Your task to perform on an android device: Open accessibility settings Image 0: 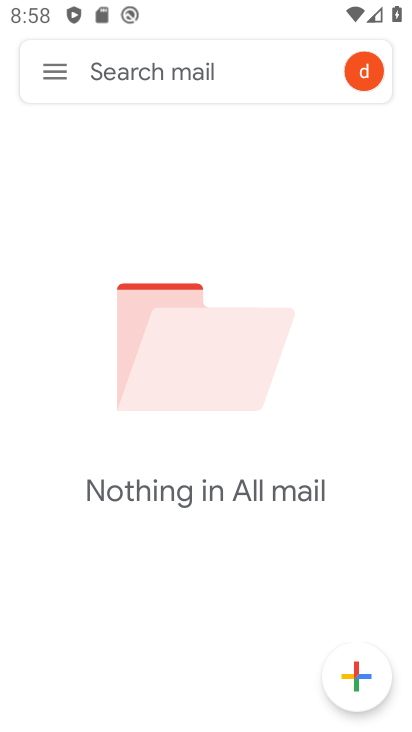
Step 0: press home button
Your task to perform on an android device: Open accessibility settings Image 1: 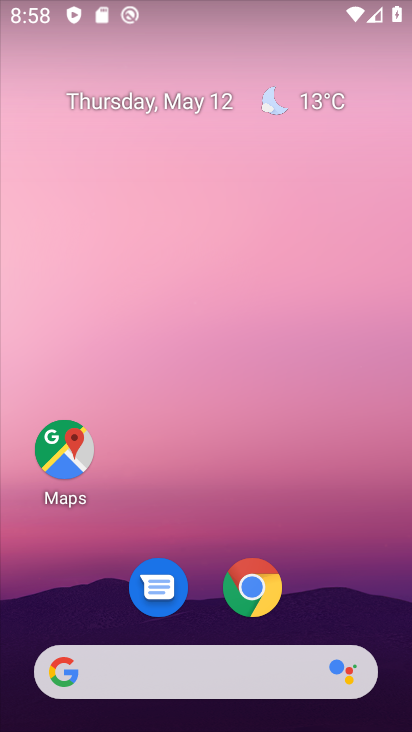
Step 1: drag from (336, 584) to (299, 118)
Your task to perform on an android device: Open accessibility settings Image 2: 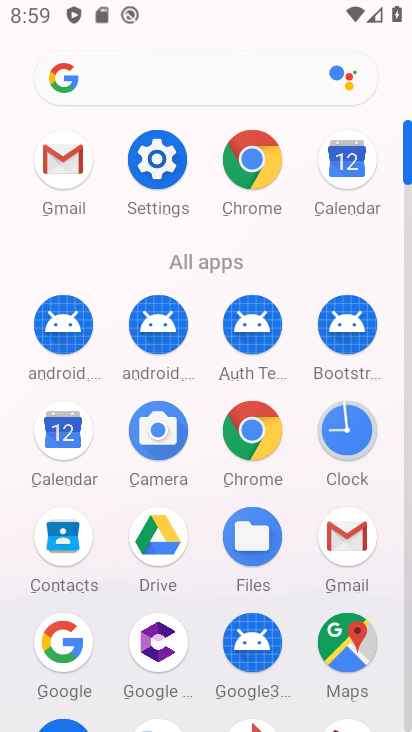
Step 2: click (157, 149)
Your task to perform on an android device: Open accessibility settings Image 3: 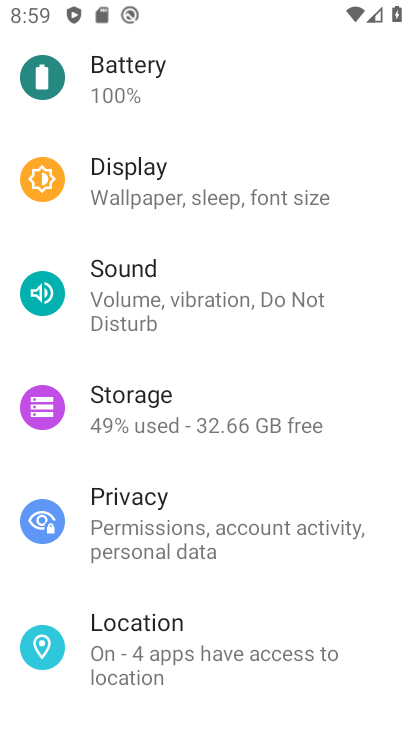
Step 3: drag from (227, 584) to (266, 72)
Your task to perform on an android device: Open accessibility settings Image 4: 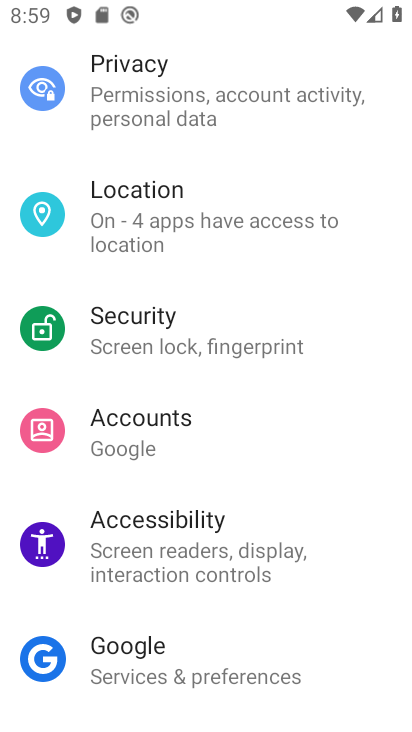
Step 4: click (237, 551)
Your task to perform on an android device: Open accessibility settings Image 5: 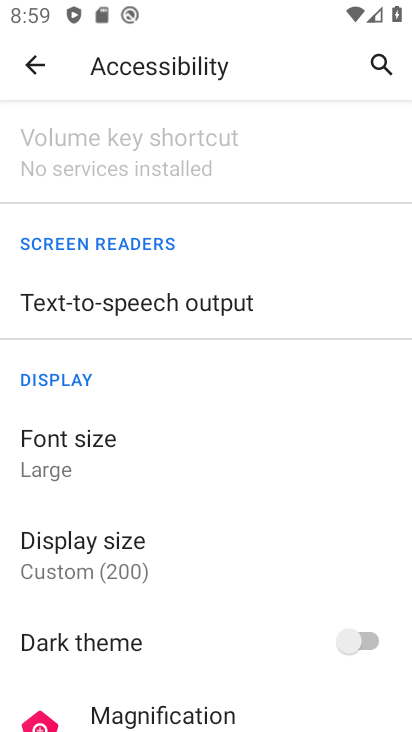
Step 5: task complete